Your task to perform on an android device: empty trash in google photos Image 0: 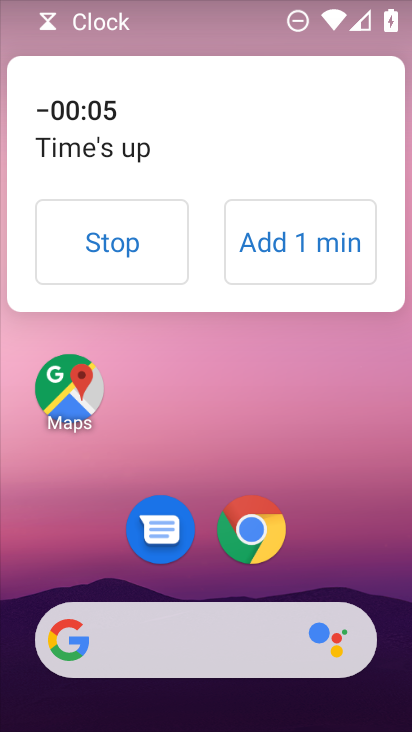
Step 0: click (122, 252)
Your task to perform on an android device: empty trash in google photos Image 1: 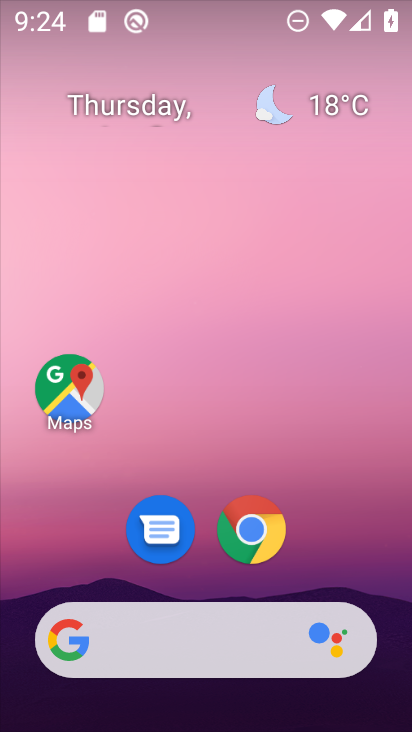
Step 1: press home button
Your task to perform on an android device: empty trash in google photos Image 2: 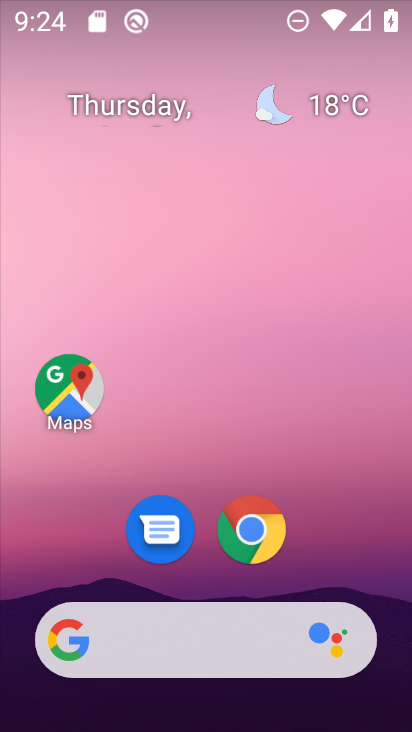
Step 2: drag from (380, 699) to (359, 427)
Your task to perform on an android device: empty trash in google photos Image 3: 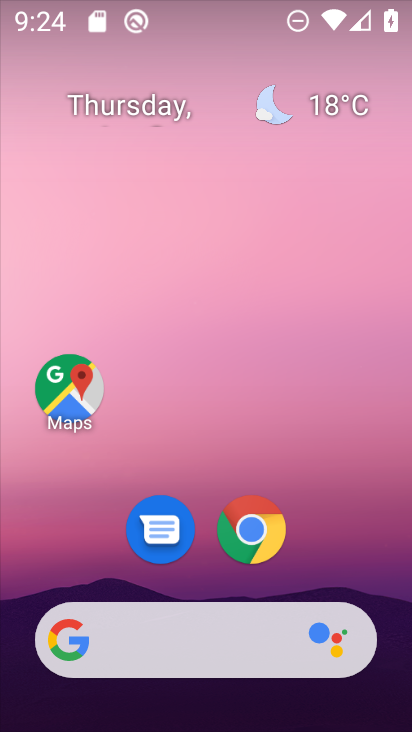
Step 3: drag from (379, 510) to (356, 137)
Your task to perform on an android device: empty trash in google photos Image 4: 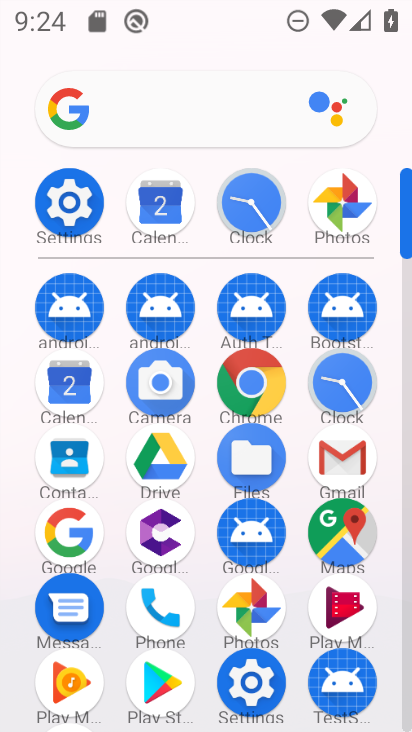
Step 4: click (333, 214)
Your task to perform on an android device: empty trash in google photos Image 5: 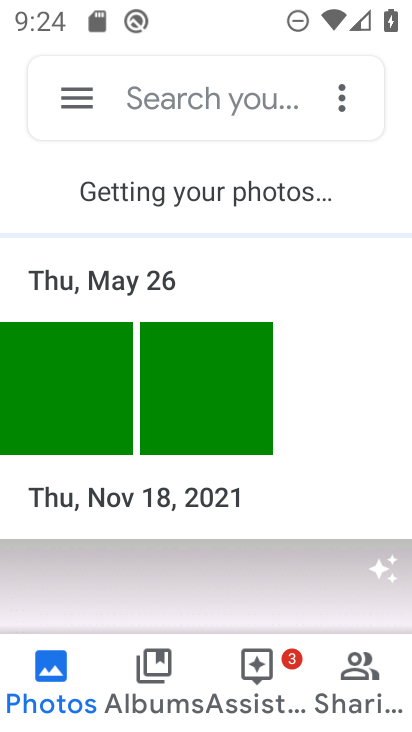
Step 5: click (78, 101)
Your task to perform on an android device: empty trash in google photos Image 6: 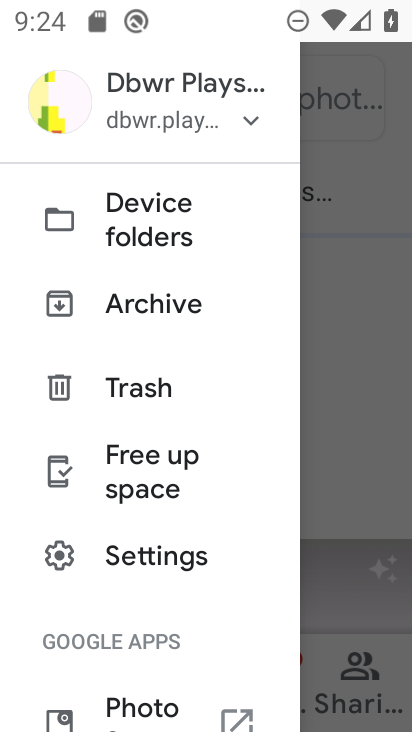
Step 6: click (140, 392)
Your task to perform on an android device: empty trash in google photos Image 7: 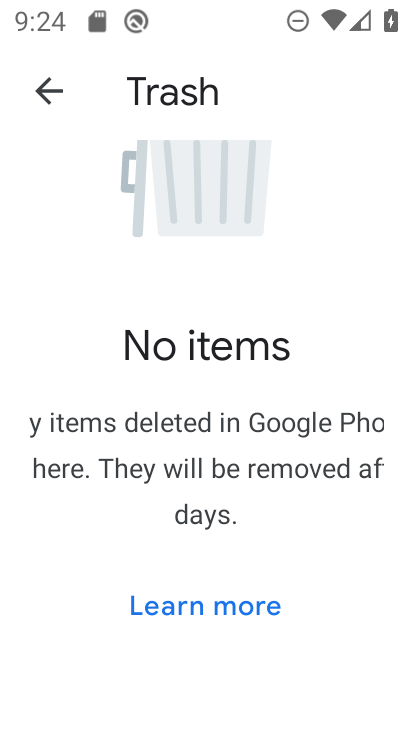
Step 7: task complete